Your task to perform on an android device: see sites visited before in the chrome app Image 0: 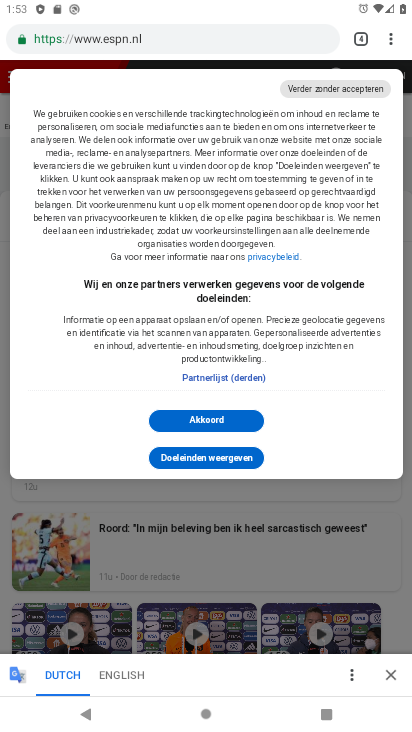
Step 0: press home button
Your task to perform on an android device: see sites visited before in the chrome app Image 1: 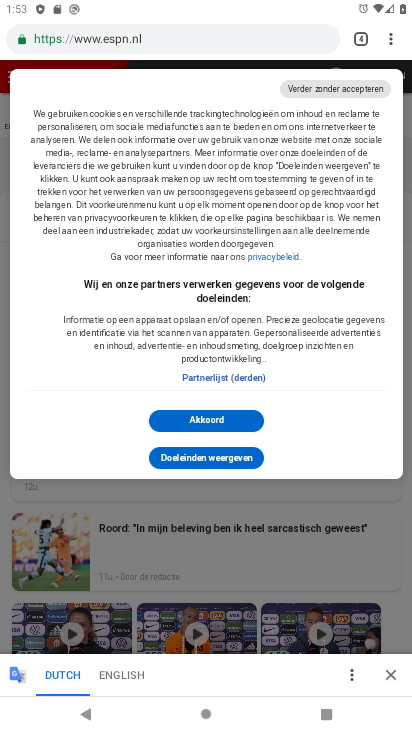
Step 1: press home button
Your task to perform on an android device: see sites visited before in the chrome app Image 2: 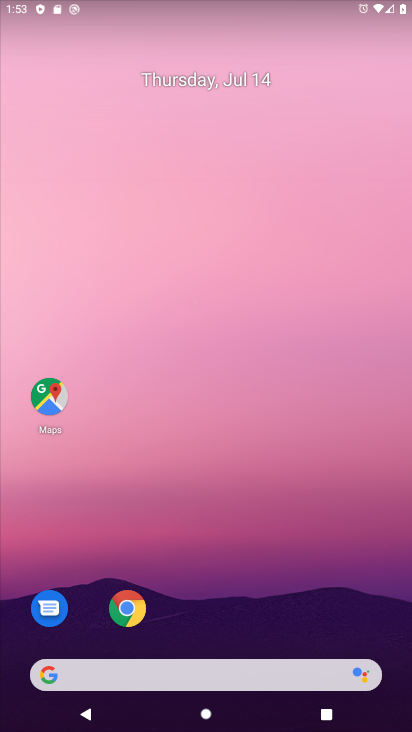
Step 2: drag from (249, 724) to (263, 158)
Your task to perform on an android device: see sites visited before in the chrome app Image 3: 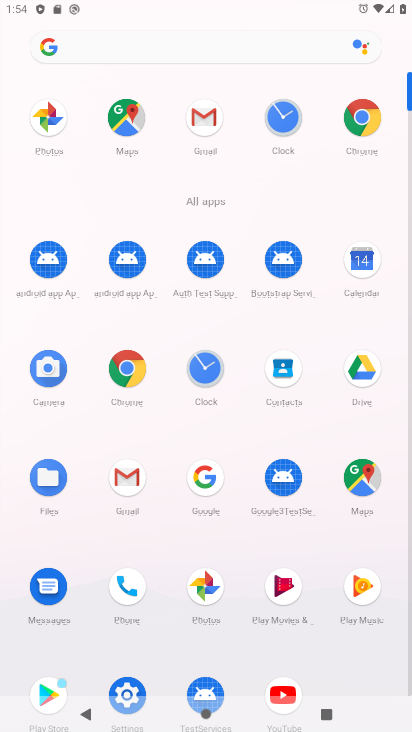
Step 3: click (126, 367)
Your task to perform on an android device: see sites visited before in the chrome app Image 4: 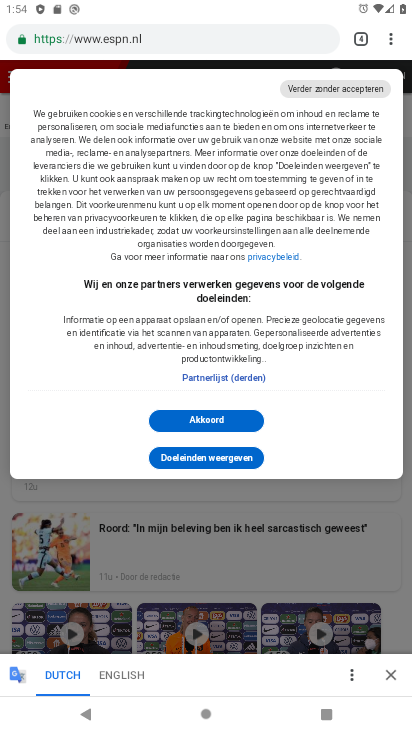
Step 4: click (390, 42)
Your task to perform on an android device: see sites visited before in the chrome app Image 5: 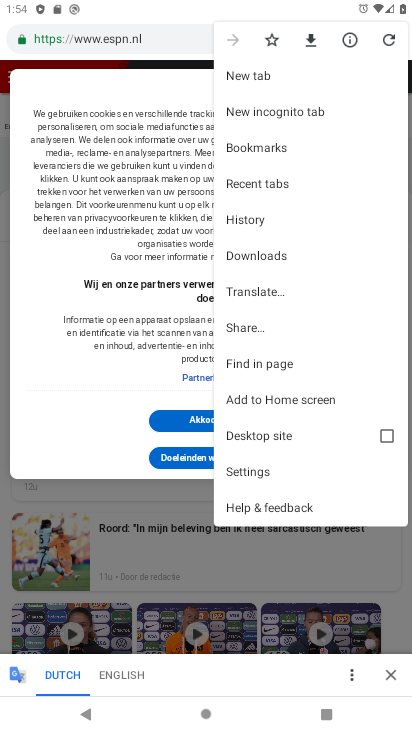
Step 5: click (249, 185)
Your task to perform on an android device: see sites visited before in the chrome app Image 6: 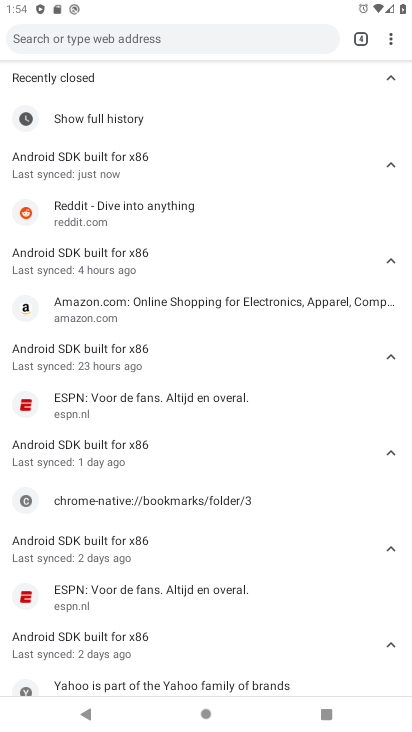
Step 6: task complete